Your task to perform on an android device: What's the latest news in space technology? Image 0: 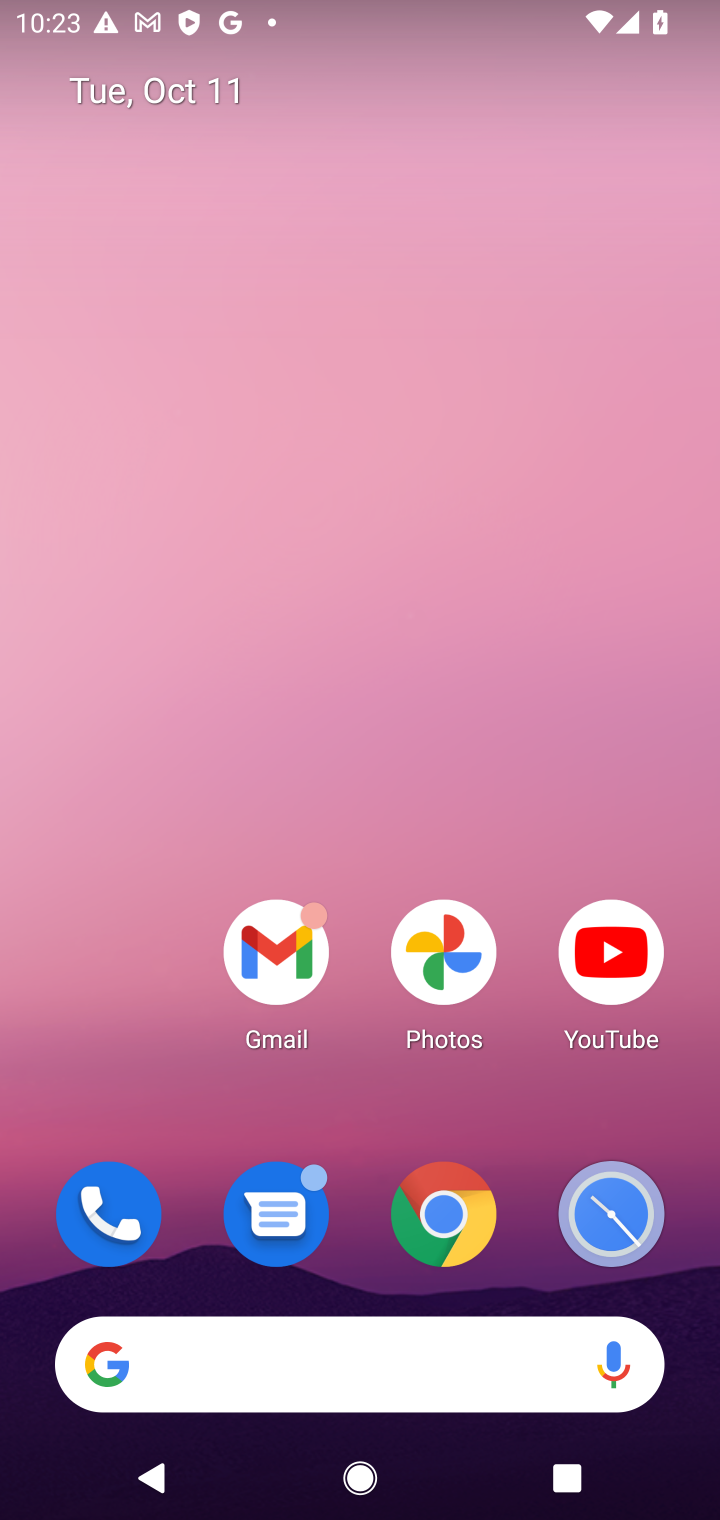
Step 0: drag from (413, 847) to (483, 2)
Your task to perform on an android device: What's the latest news in space technology? Image 1: 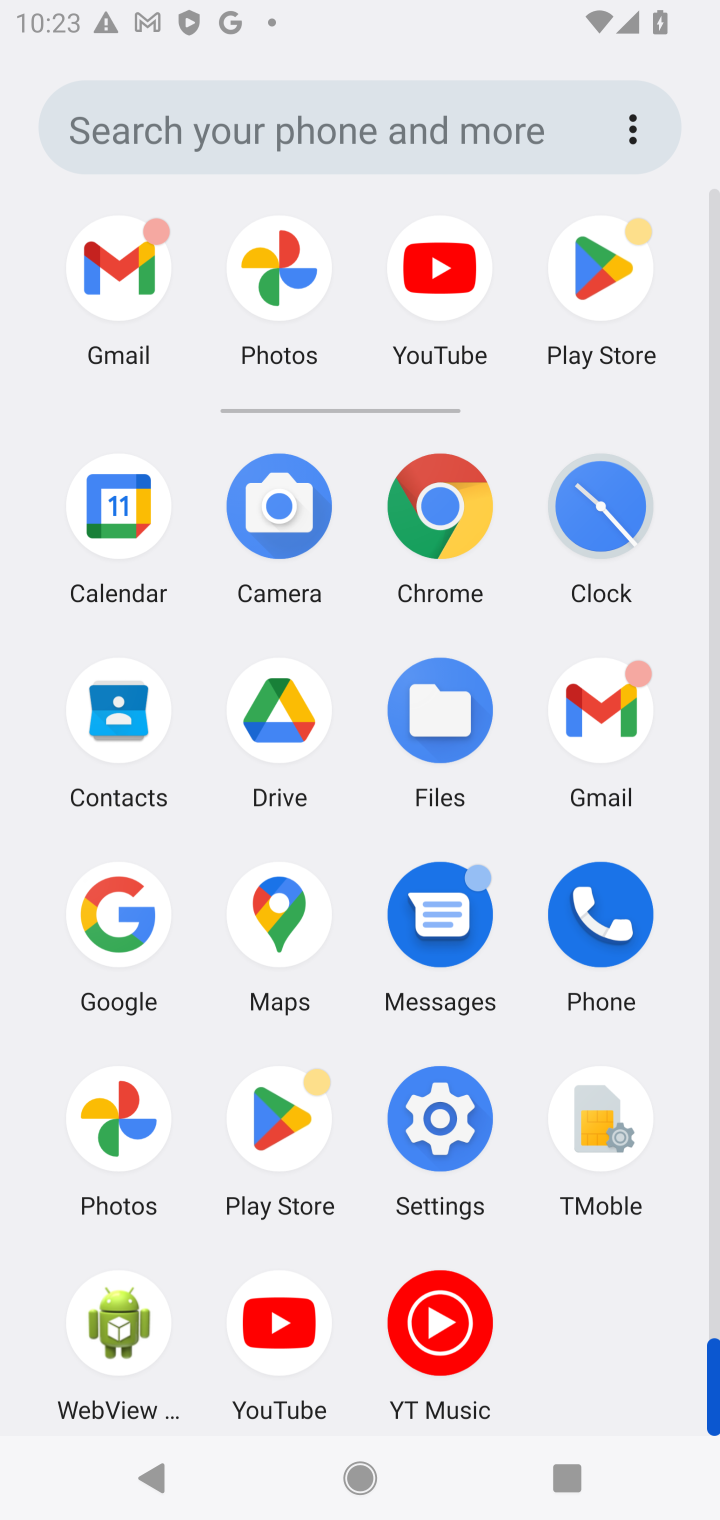
Step 1: click (432, 505)
Your task to perform on an android device: What's the latest news in space technology? Image 2: 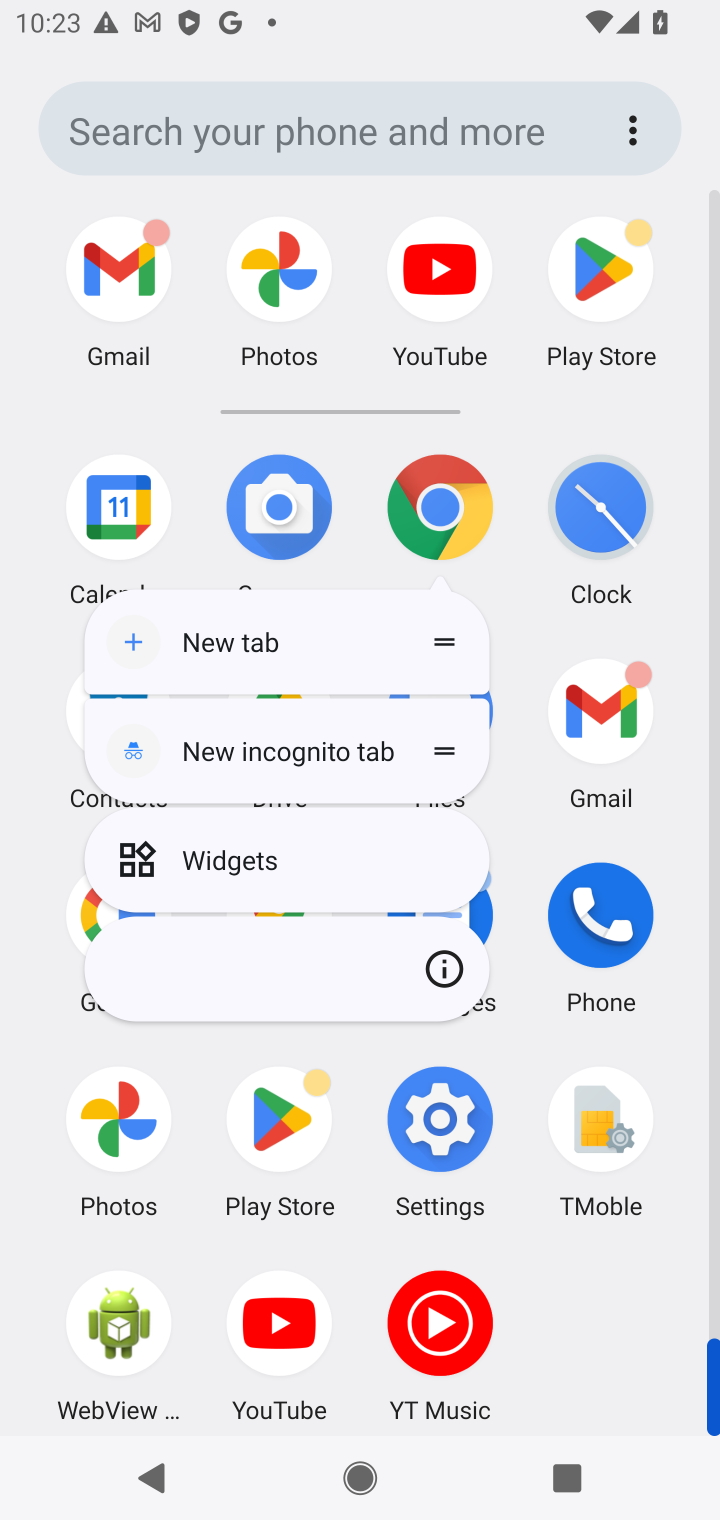
Step 2: click (437, 500)
Your task to perform on an android device: What's the latest news in space technology? Image 3: 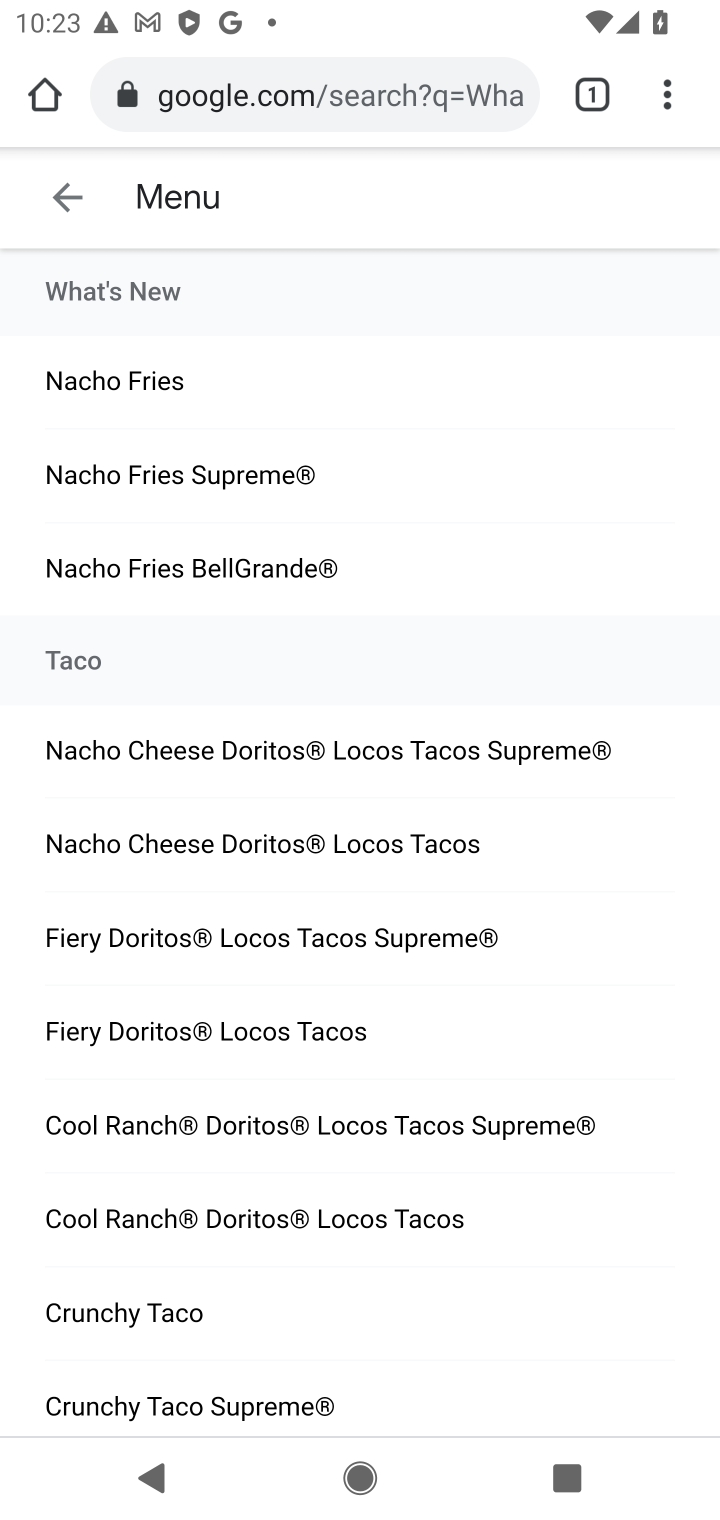
Step 3: click (290, 100)
Your task to perform on an android device: What's the latest news in space technology? Image 4: 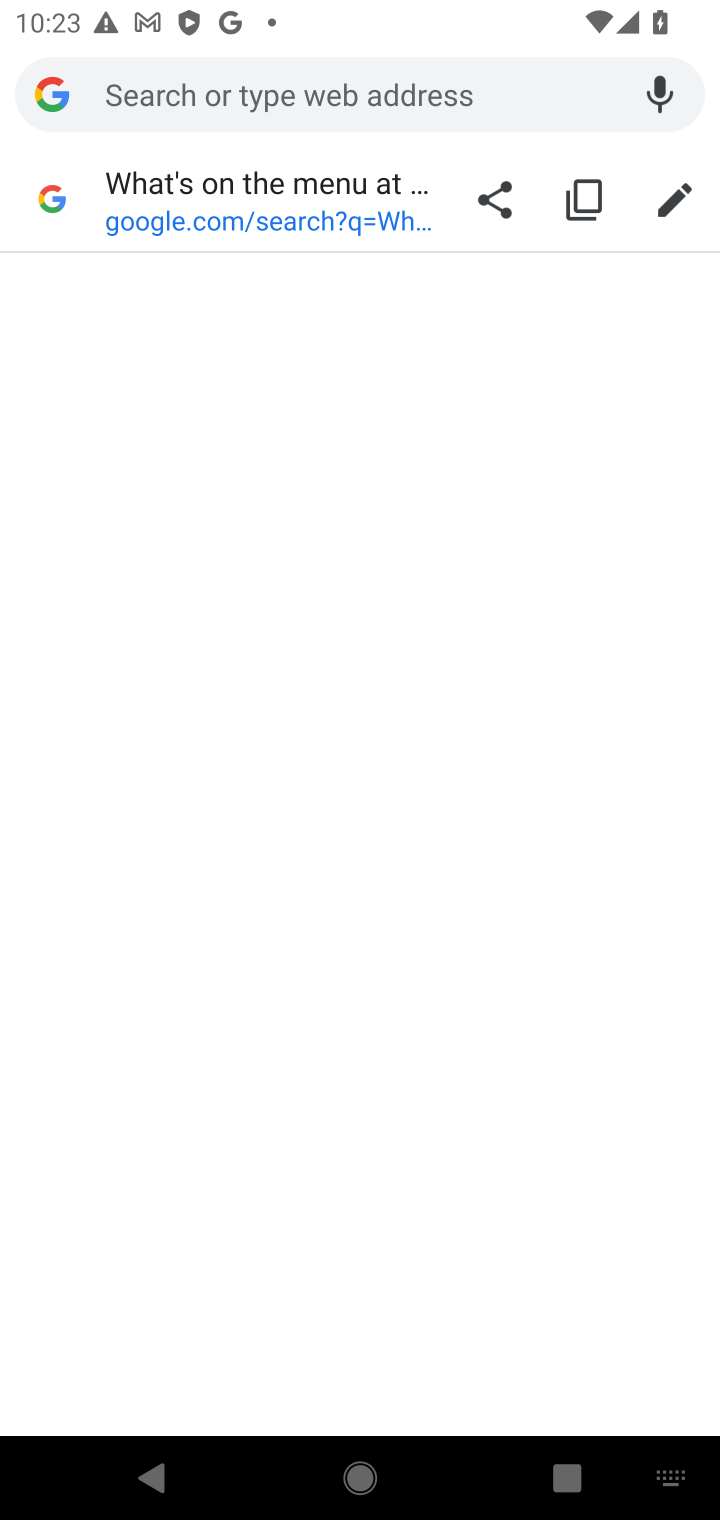
Step 4: type "What's the latest news in space technology?"
Your task to perform on an android device: What's the latest news in space technology? Image 5: 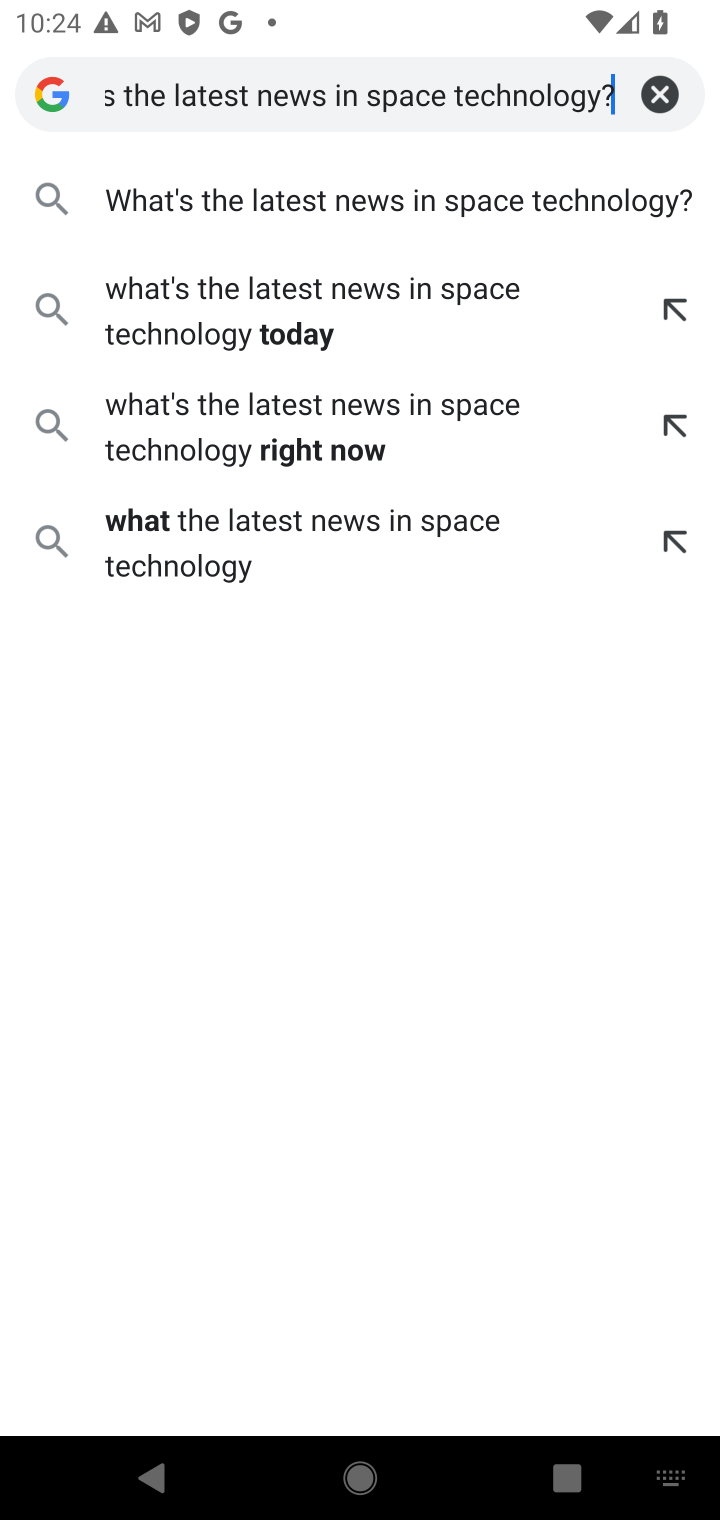
Step 5: press enter
Your task to perform on an android device: What's the latest news in space technology? Image 6: 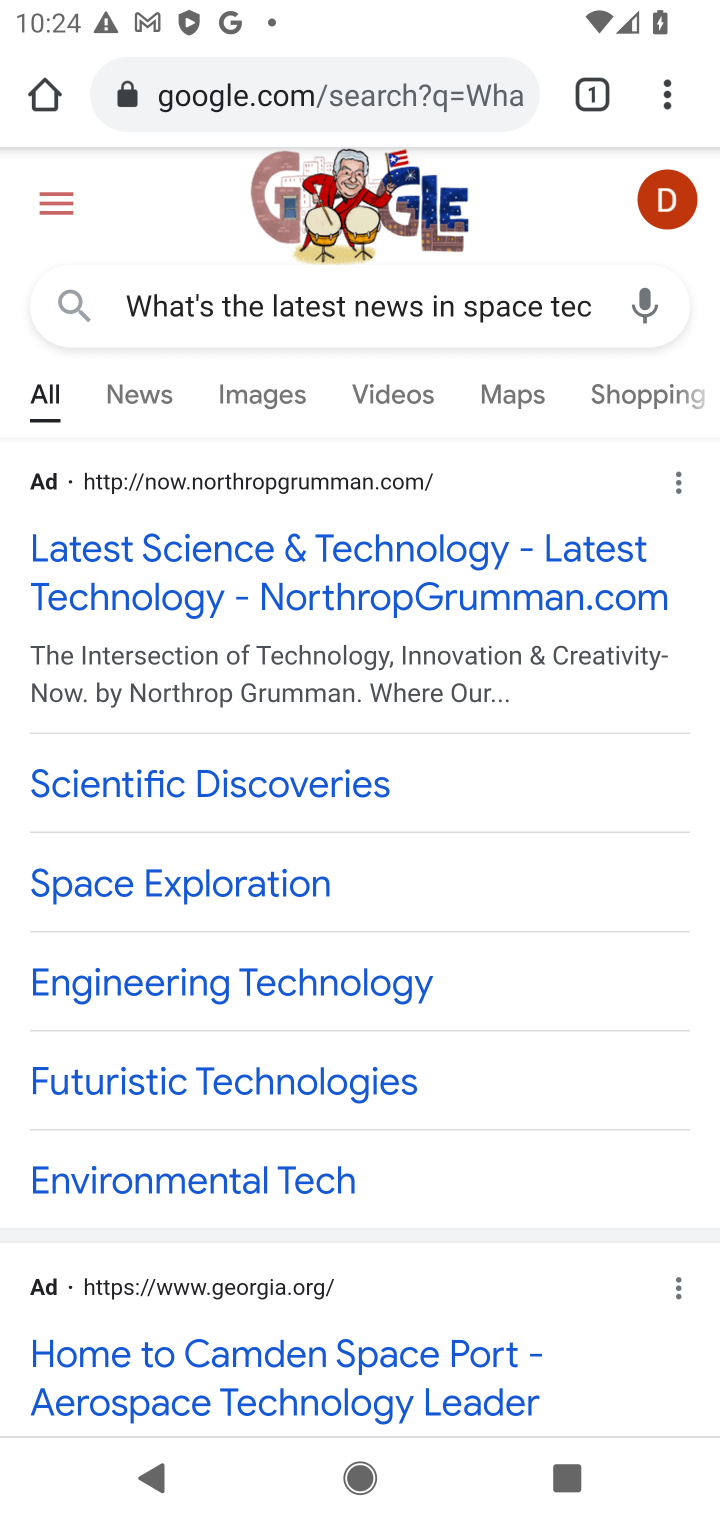
Step 6: drag from (347, 1123) to (285, 292)
Your task to perform on an android device: What's the latest news in space technology? Image 7: 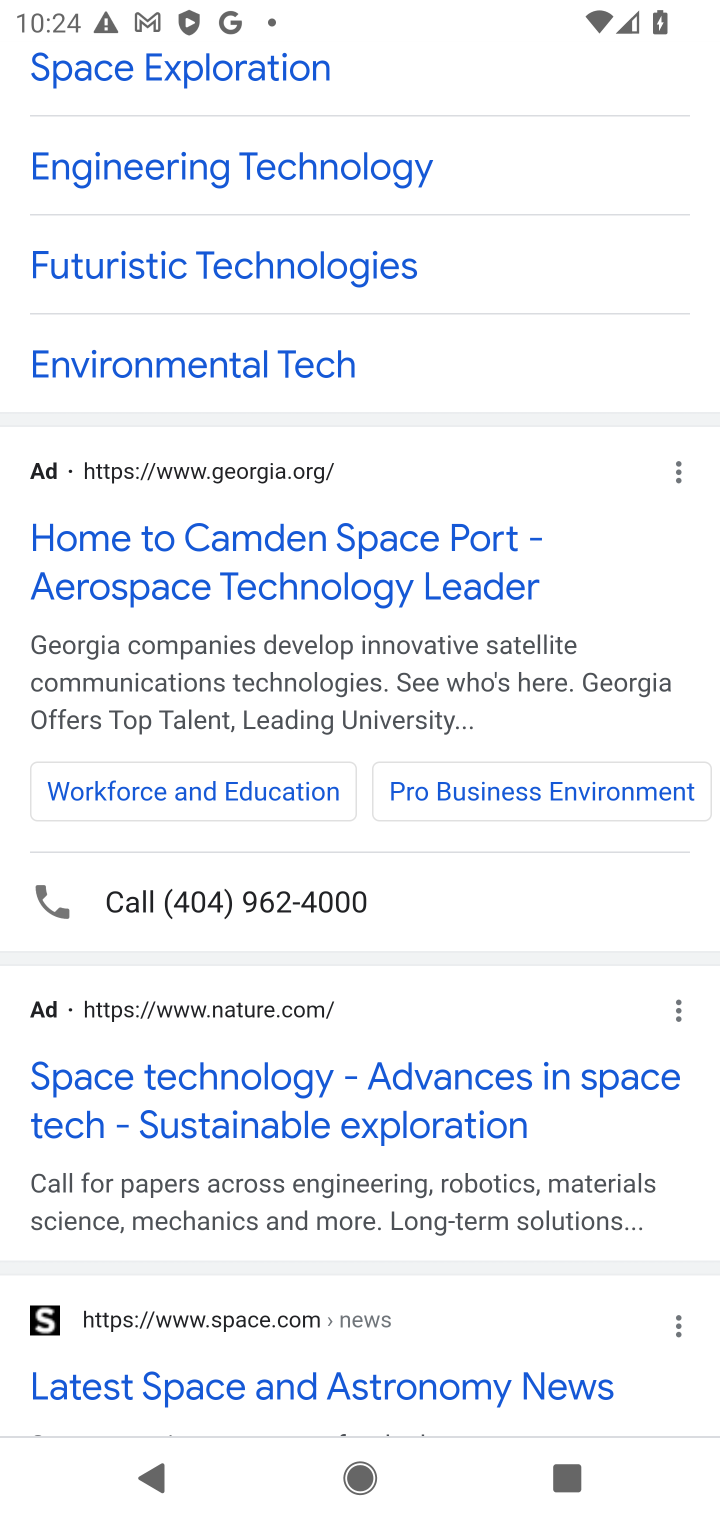
Step 7: drag from (237, 931) to (301, 381)
Your task to perform on an android device: What's the latest news in space technology? Image 8: 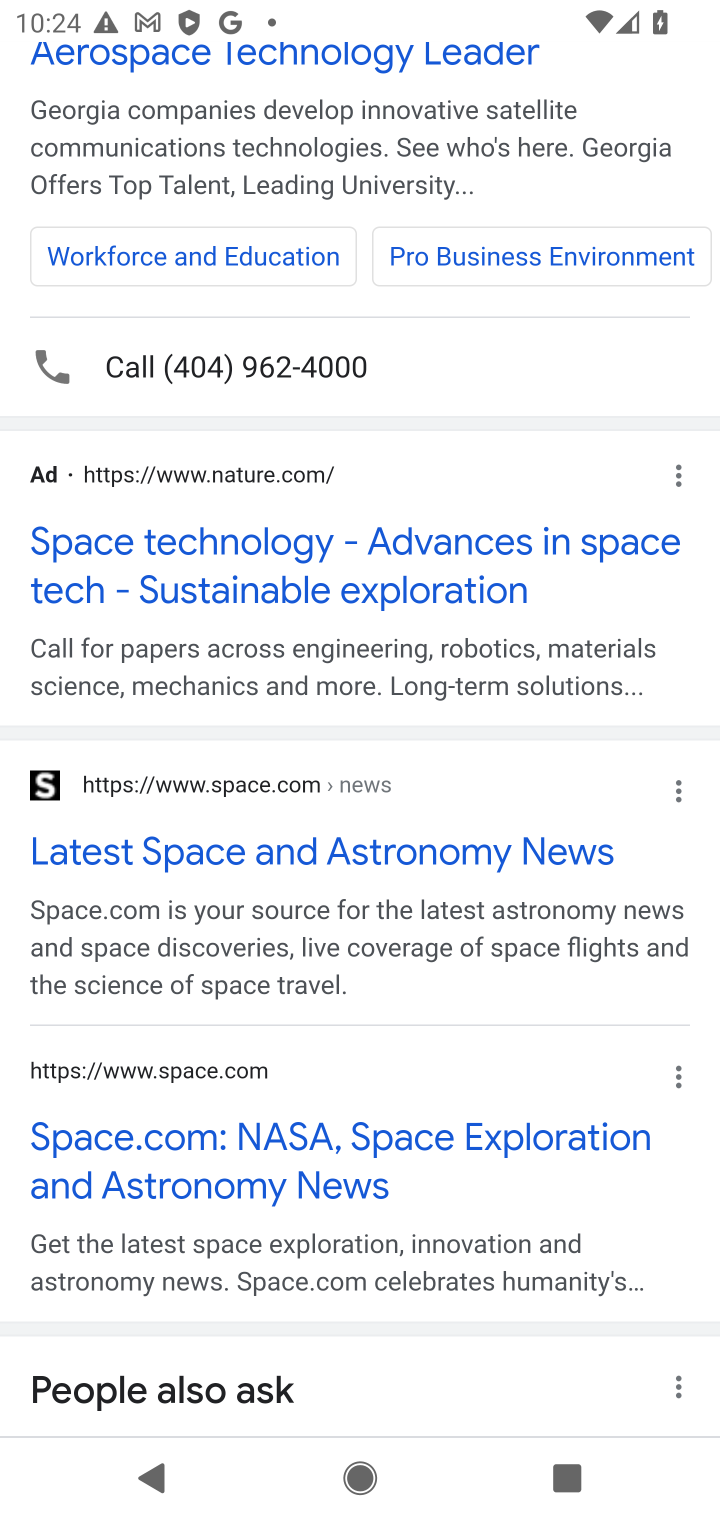
Step 8: click (507, 866)
Your task to perform on an android device: What's the latest news in space technology? Image 9: 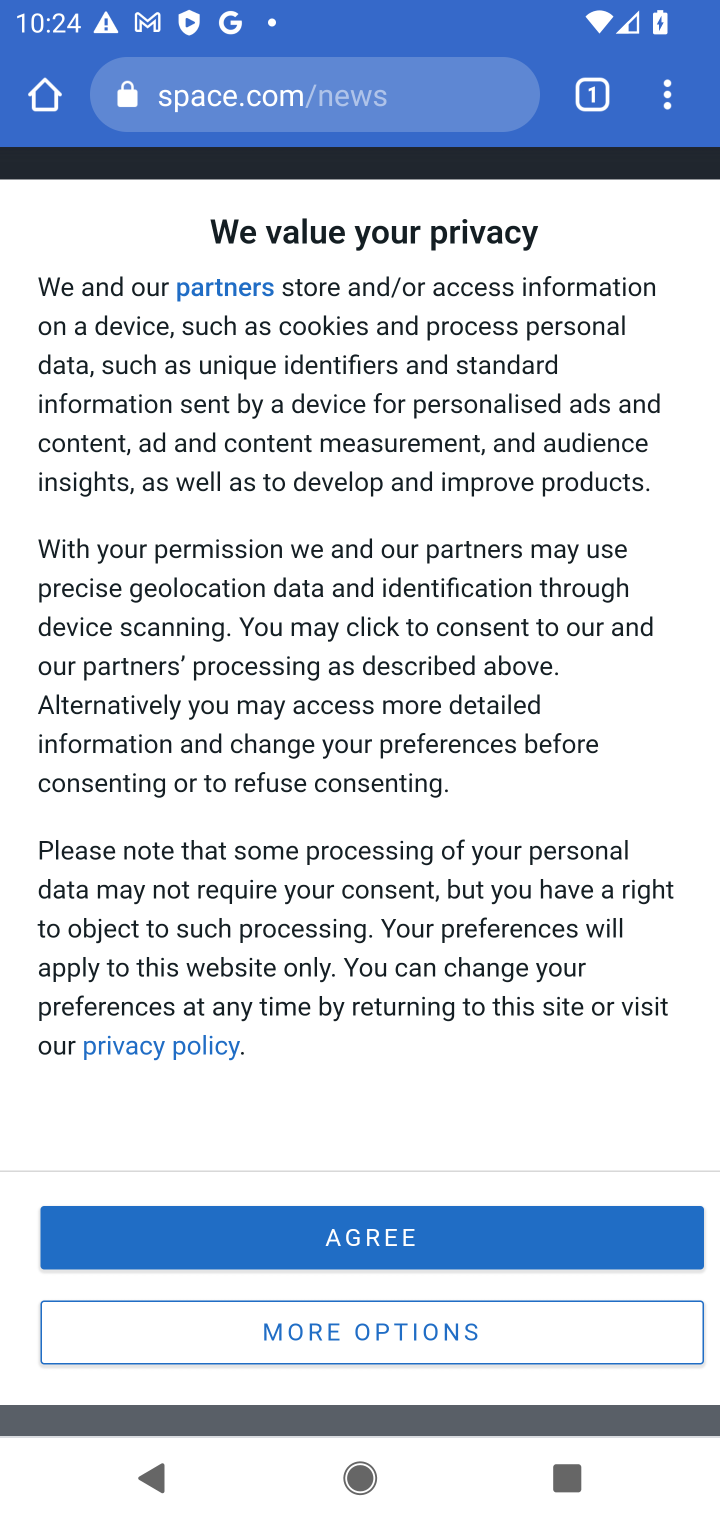
Step 9: click (451, 1234)
Your task to perform on an android device: What's the latest news in space technology? Image 10: 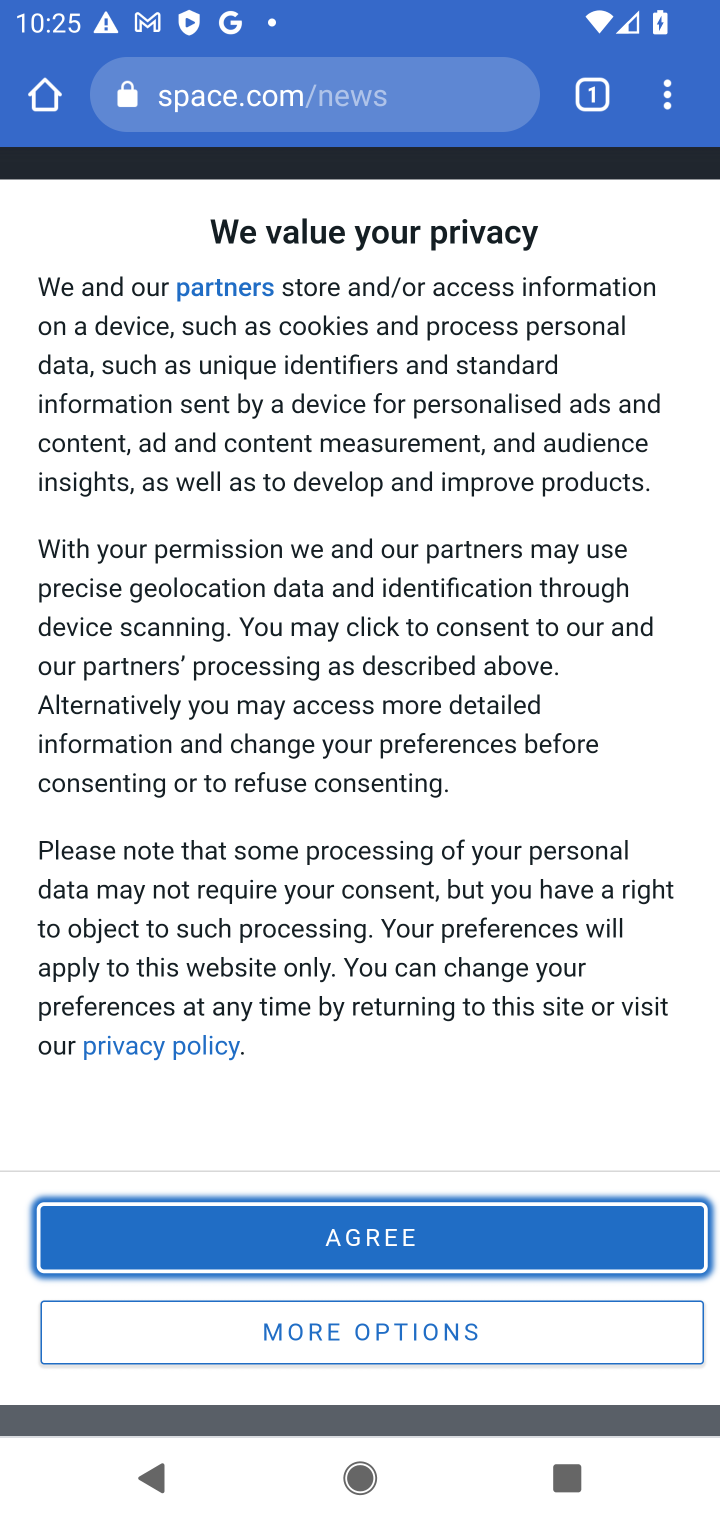
Step 10: click (365, 1223)
Your task to perform on an android device: What's the latest news in space technology? Image 11: 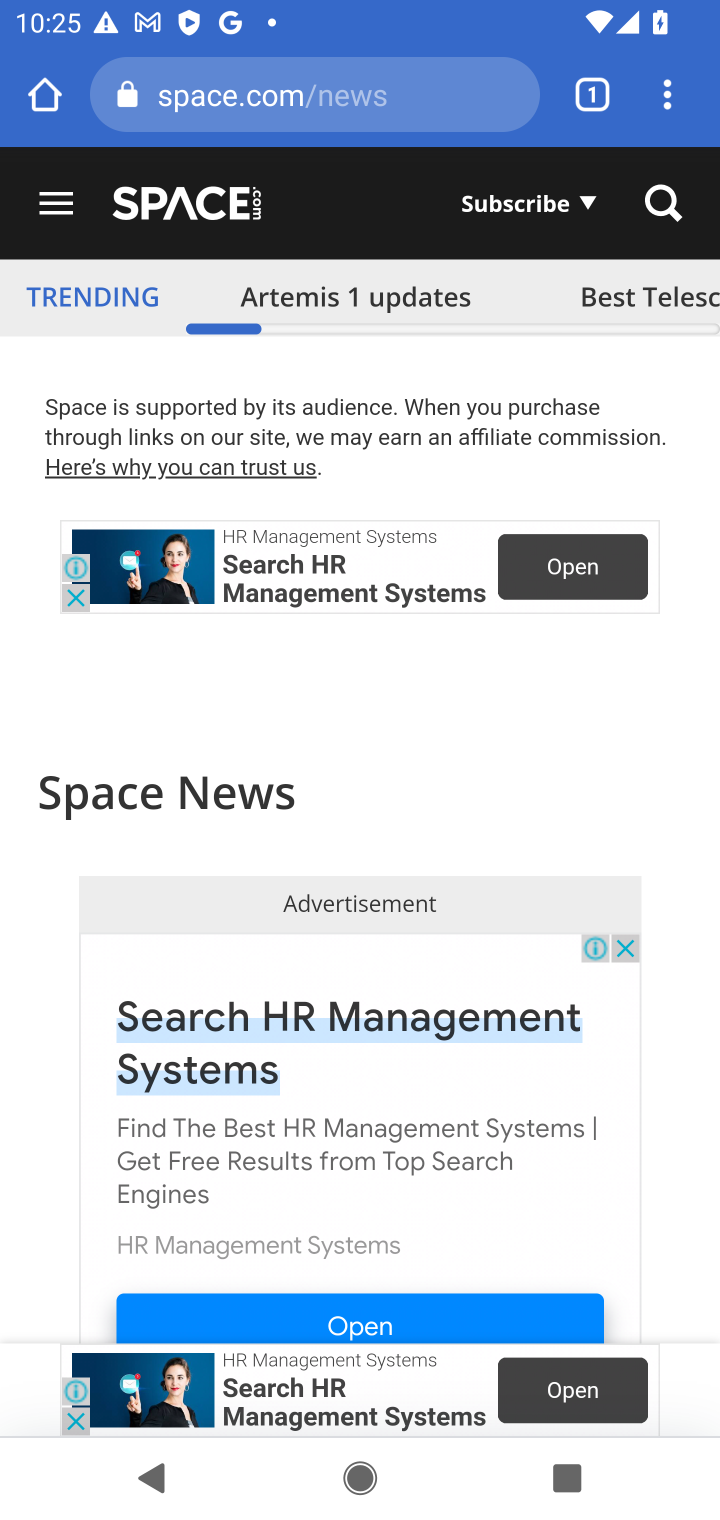
Step 11: task complete